Your task to perform on an android device: Search for seafood restaurants on Google Maps Image 0: 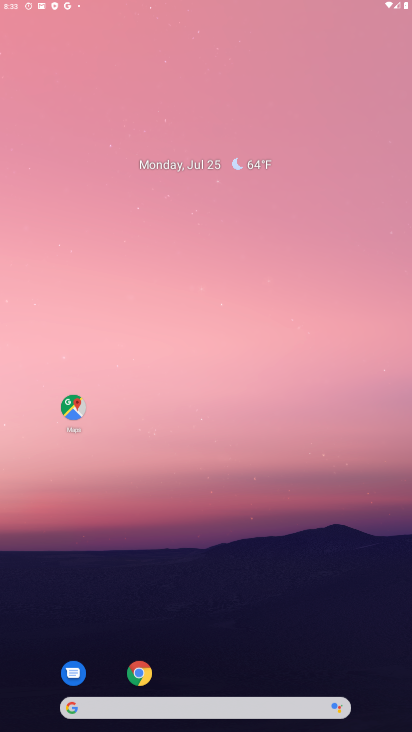
Step 0: click (352, 150)
Your task to perform on an android device: Search for seafood restaurants on Google Maps Image 1: 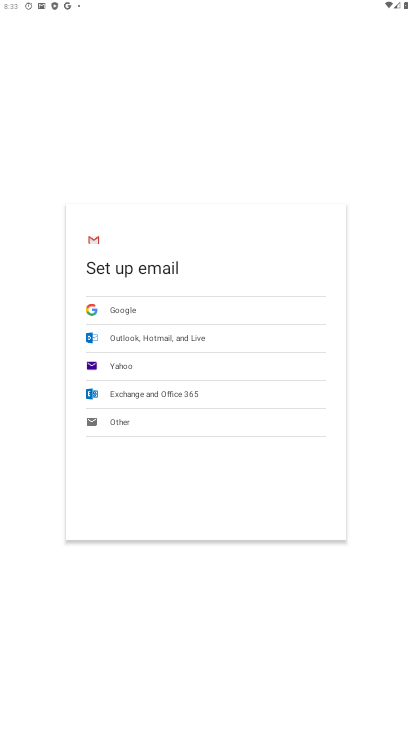
Step 1: drag from (175, 661) to (250, 57)
Your task to perform on an android device: Search for seafood restaurants on Google Maps Image 2: 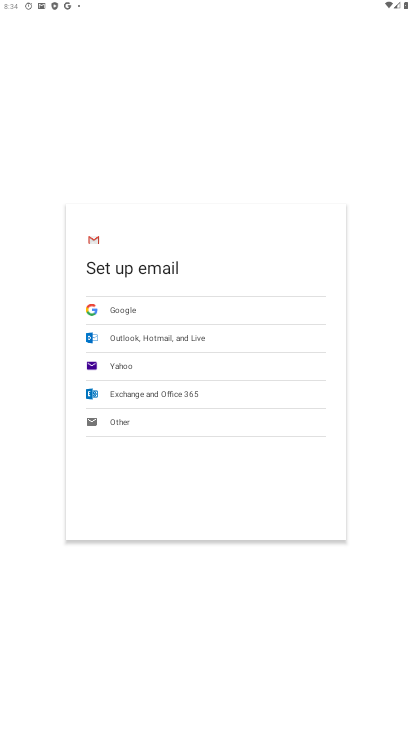
Step 2: press home button
Your task to perform on an android device: Search for seafood restaurants on Google Maps Image 3: 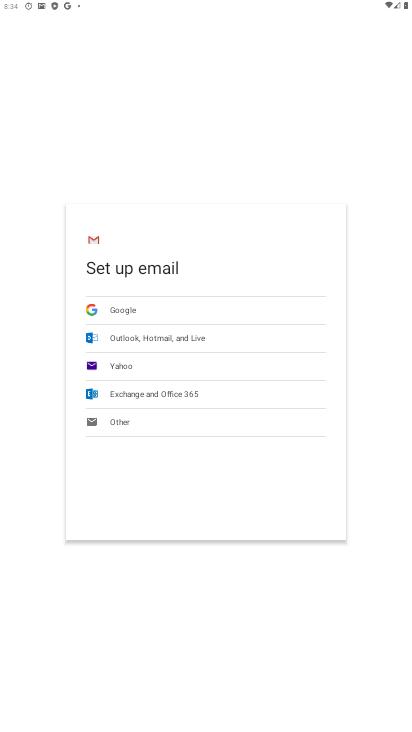
Step 3: press home button
Your task to perform on an android device: Search for seafood restaurants on Google Maps Image 4: 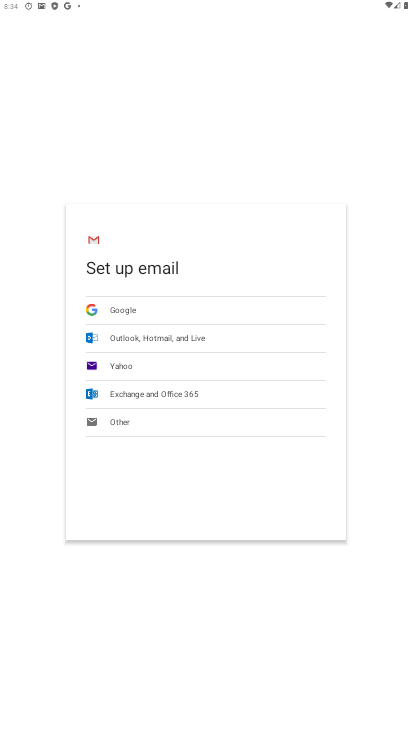
Step 4: drag from (239, 218) to (269, 67)
Your task to perform on an android device: Search for seafood restaurants on Google Maps Image 5: 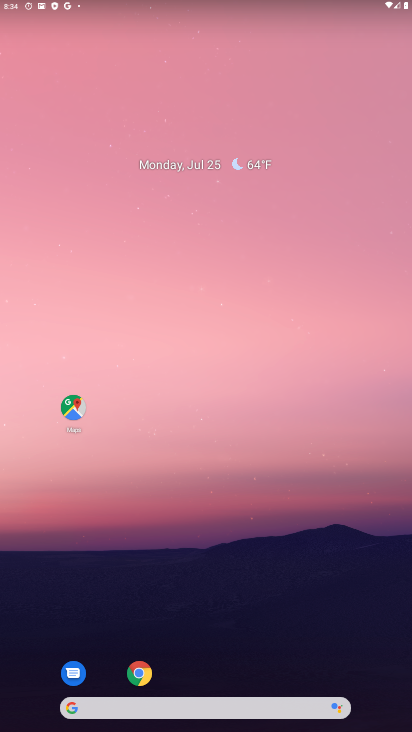
Step 5: drag from (241, 625) to (260, 24)
Your task to perform on an android device: Search for seafood restaurants on Google Maps Image 6: 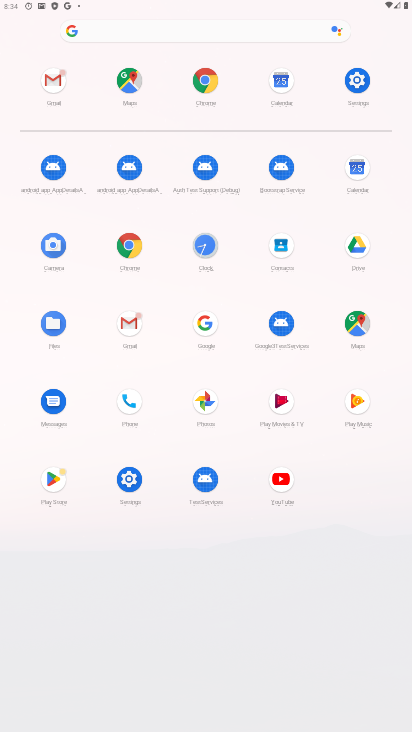
Step 6: click (202, 325)
Your task to perform on an android device: Search for seafood restaurants on Google Maps Image 7: 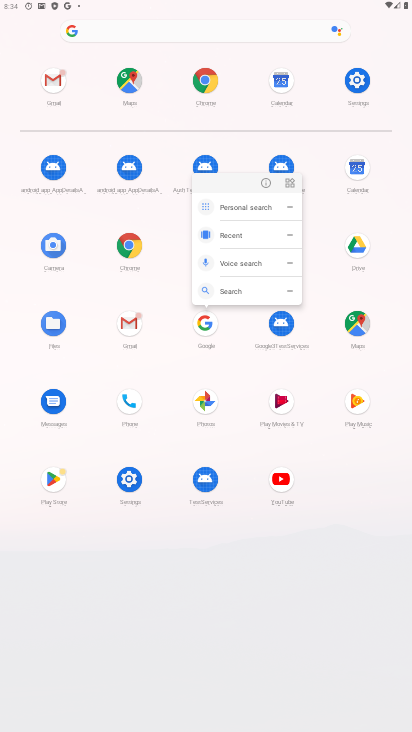
Step 7: click (382, 315)
Your task to perform on an android device: Search for seafood restaurants on Google Maps Image 8: 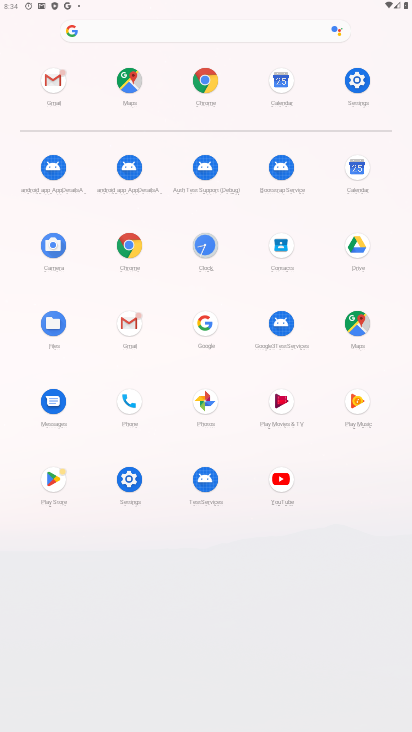
Step 8: click (364, 319)
Your task to perform on an android device: Search for seafood restaurants on Google Maps Image 9: 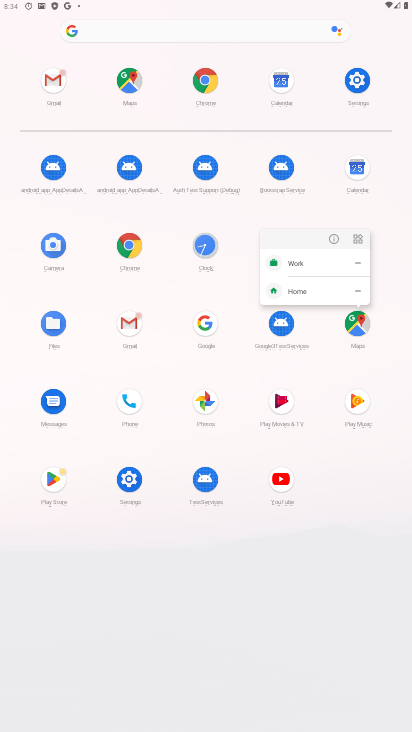
Step 9: click (336, 234)
Your task to perform on an android device: Search for seafood restaurants on Google Maps Image 10: 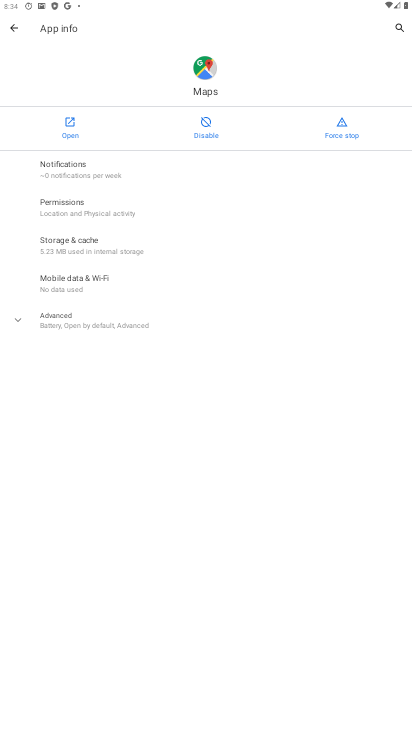
Step 10: click (77, 127)
Your task to perform on an android device: Search for seafood restaurants on Google Maps Image 11: 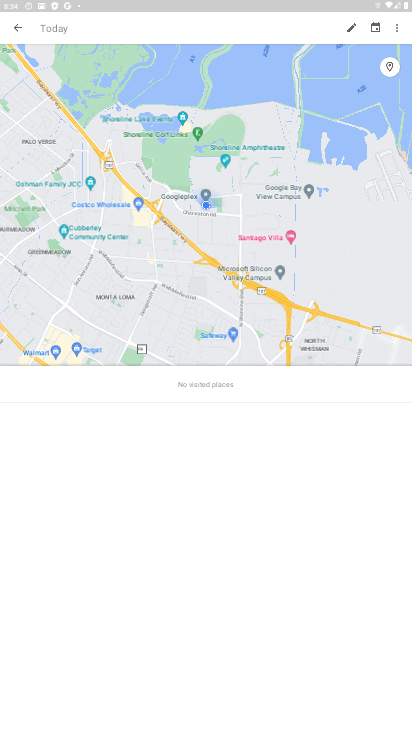
Step 11: click (14, 45)
Your task to perform on an android device: Search for seafood restaurants on Google Maps Image 12: 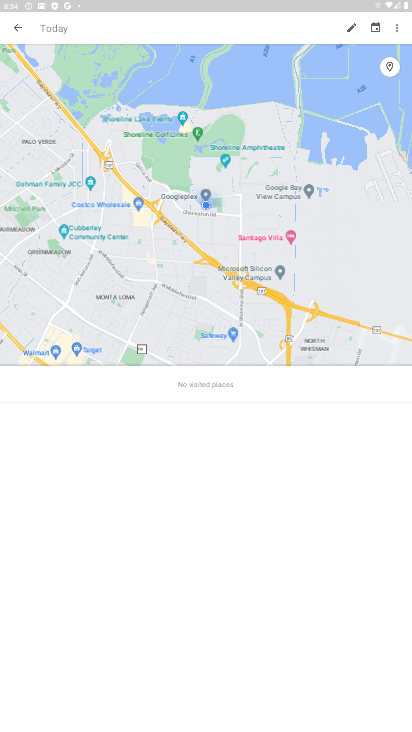
Step 12: click (15, 35)
Your task to perform on an android device: Search for seafood restaurants on Google Maps Image 13: 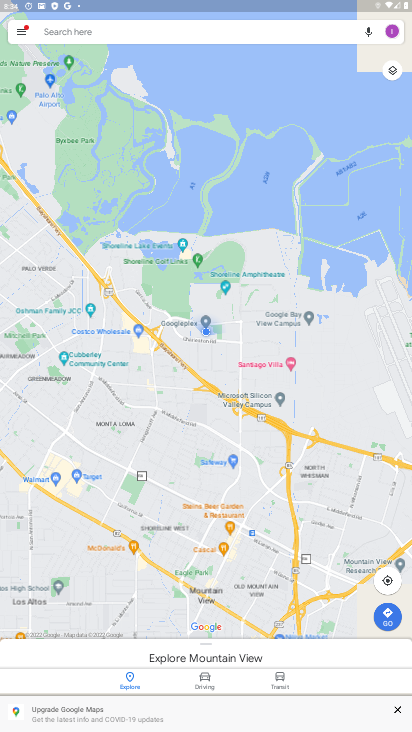
Step 13: click (53, 30)
Your task to perform on an android device: Search for seafood restaurants on Google Maps Image 14: 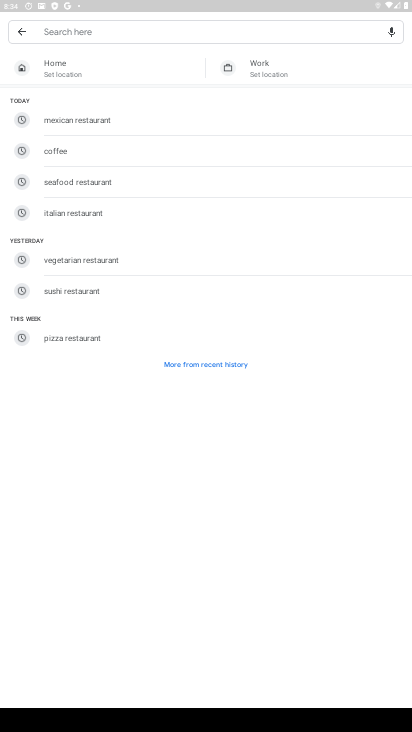
Step 14: click (59, 187)
Your task to perform on an android device: Search for seafood restaurants on Google Maps Image 15: 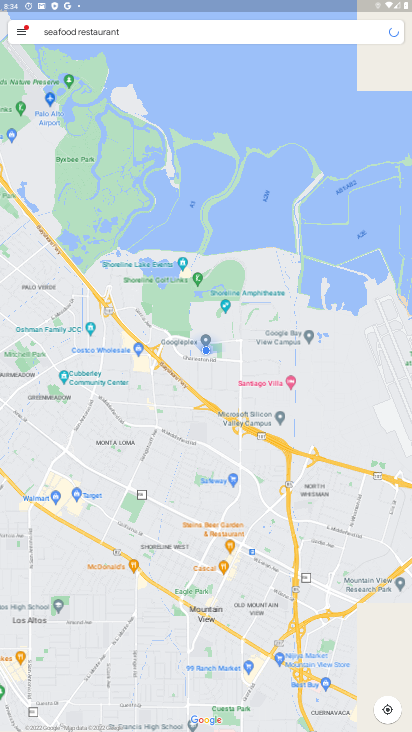
Step 15: task complete